Your task to perform on an android device: Go to Yahoo.com Image 0: 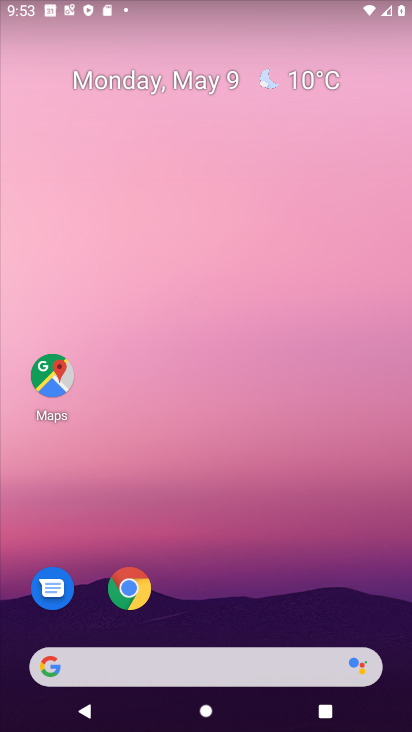
Step 0: drag from (199, 674) to (339, 41)
Your task to perform on an android device: Go to Yahoo.com Image 1: 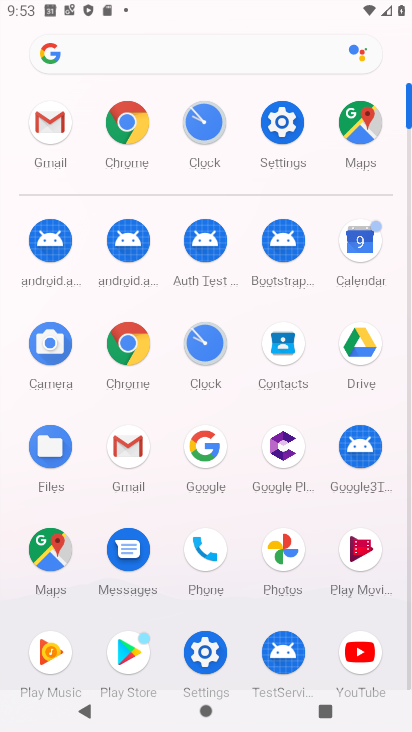
Step 1: click (128, 137)
Your task to perform on an android device: Go to Yahoo.com Image 2: 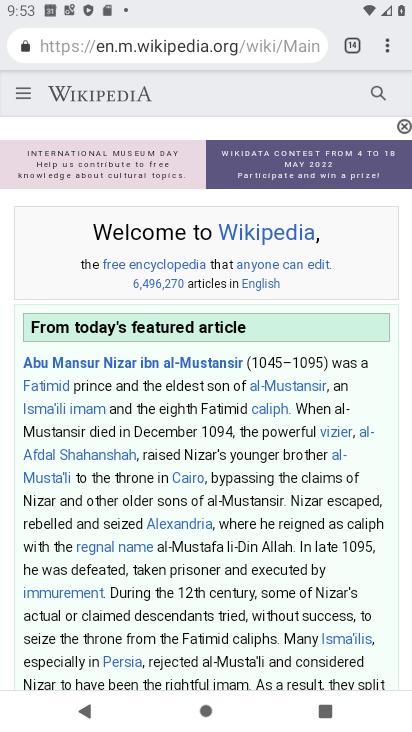
Step 2: drag from (385, 50) to (323, 85)
Your task to perform on an android device: Go to Yahoo.com Image 3: 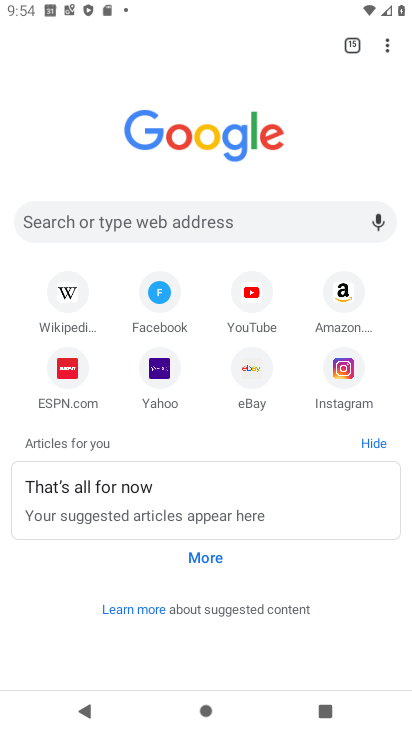
Step 3: click (165, 371)
Your task to perform on an android device: Go to Yahoo.com Image 4: 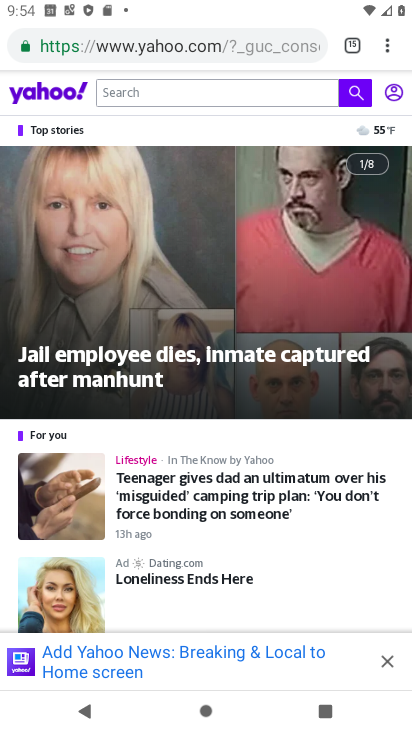
Step 4: task complete